Your task to perform on an android device: Open the phone app and click the voicemail tab. Image 0: 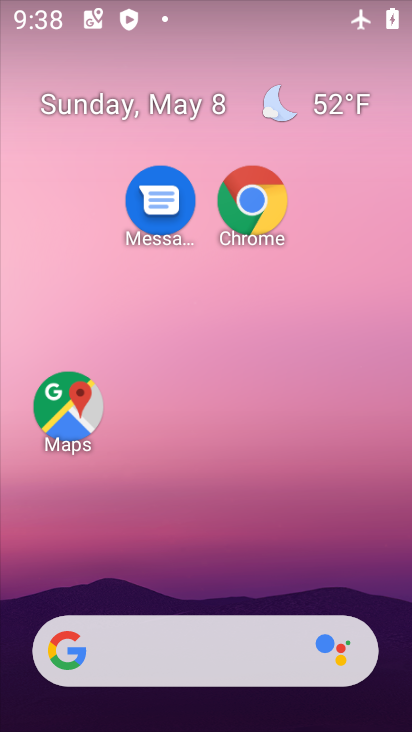
Step 0: drag from (220, 611) to (148, 66)
Your task to perform on an android device: Open the phone app and click the voicemail tab. Image 1: 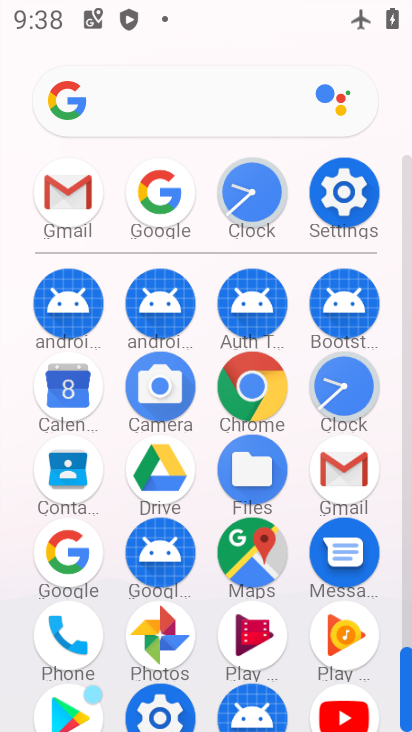
Step 1: click (78, 629)
Your task to perform on an android device: Open the phone app and click the voicemail tab. Image 2: 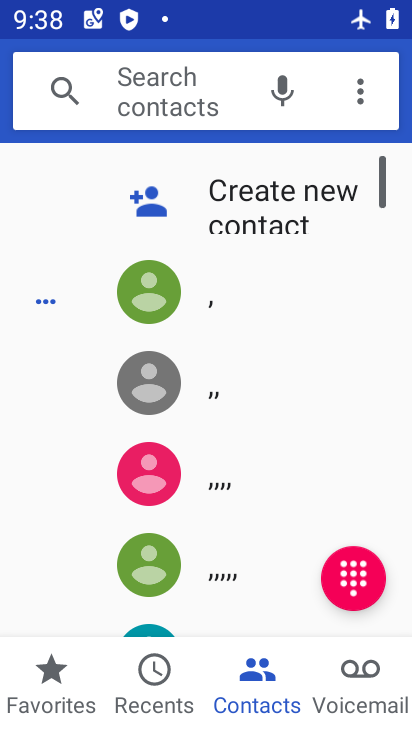
Step 2: click (356, 690)
Your task to perform on an android device: Open the phone app and click the voicemail tab. Image 3: 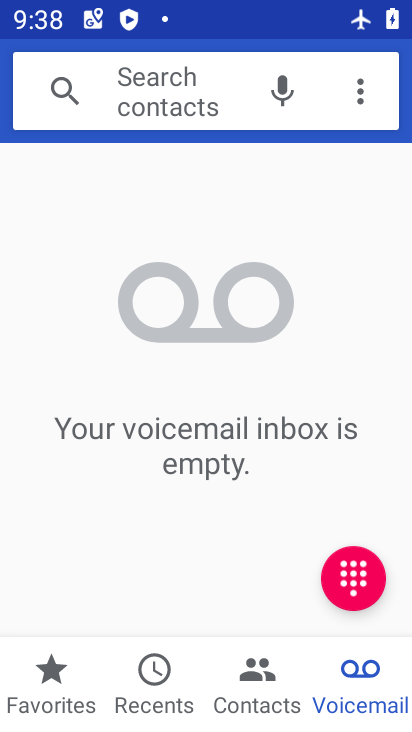
Step 3: task complete